Your task to perform on an android device: delete location history Image 0: 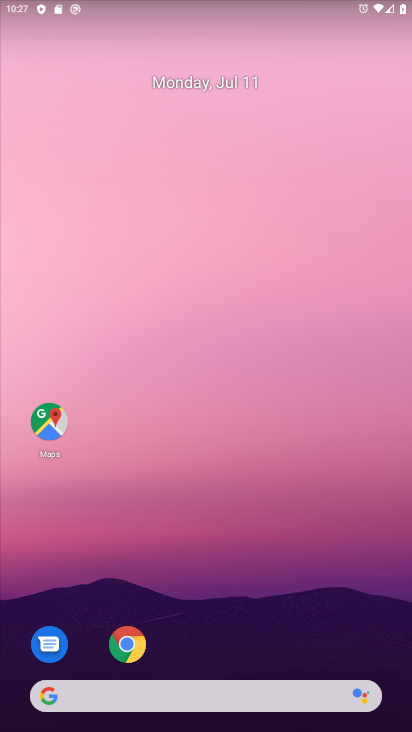
Step 0: drag from (208, 670) to (256, 30)
Your task to perform on an android device: delete location history Image 1: 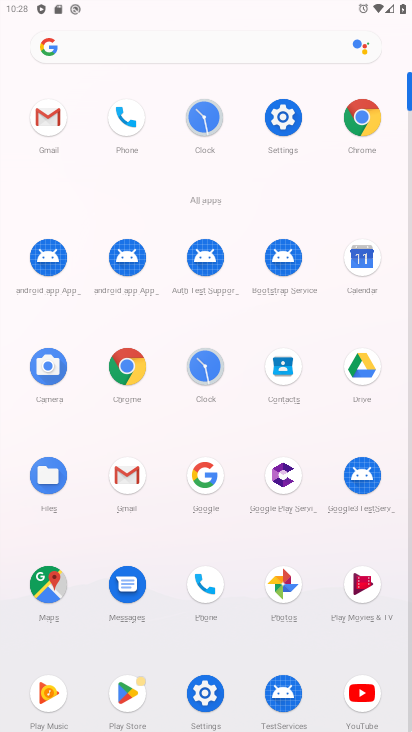
Step 1: click (291, 136)
Your task to perform on an android device: delete location history Image 2: 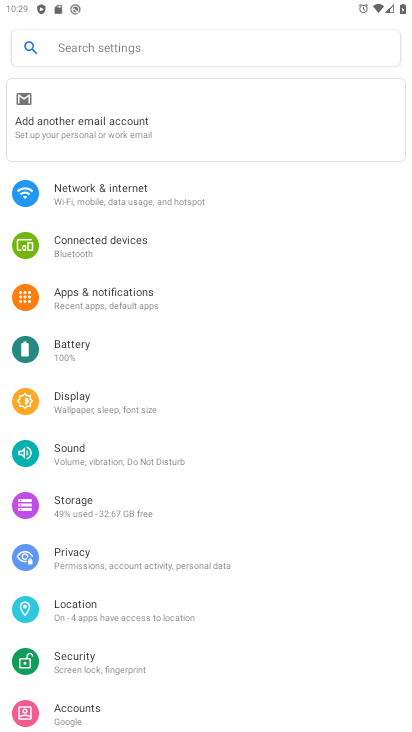
Step 2: press home button
Your task to perform on an android device: delete location history Image 3: 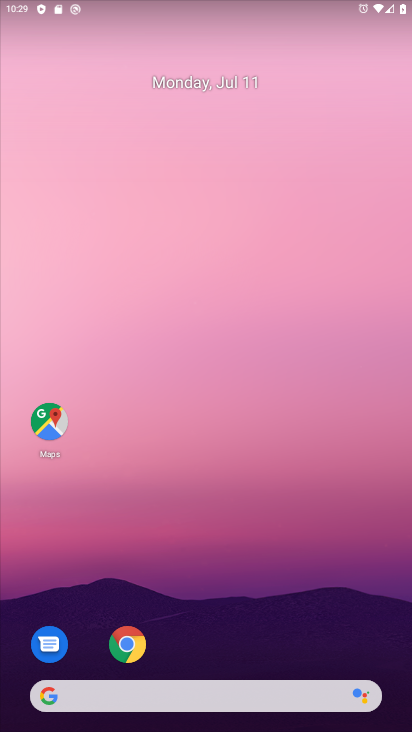
Step 3: click (45, 430)
Your task to perform on an android device: delete location history Image 4: 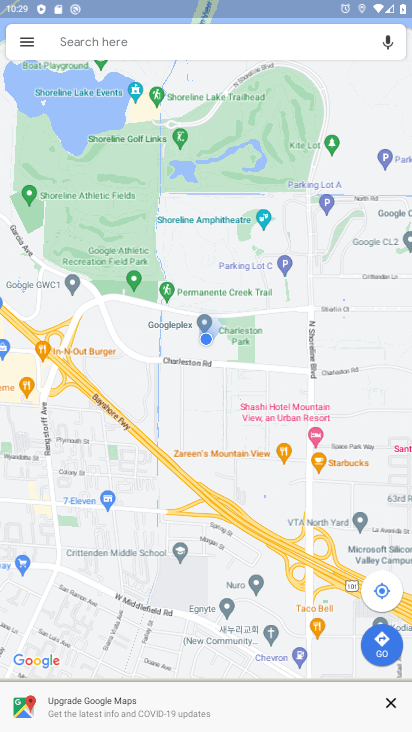
Step 4: click (29, 45)
Your task to perform on an android device: delete location history Image 5: 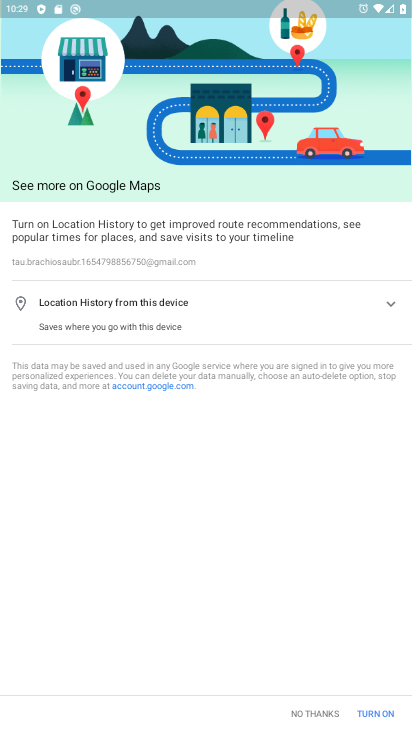
Step 5: click (307, 713)
Your task to perform on an android device: delete location history Image 6: 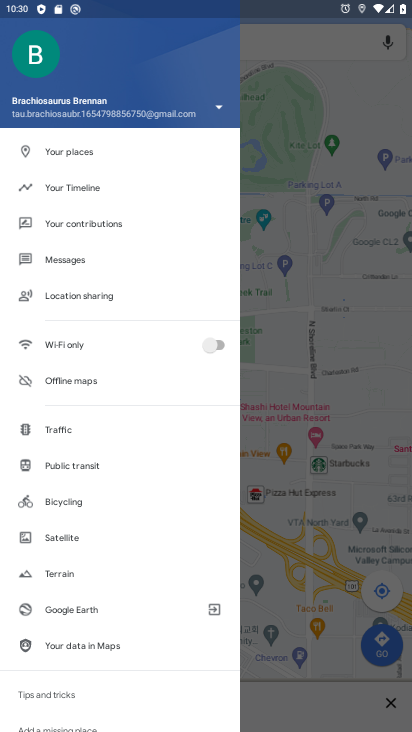
Step 6: drag from (111, 664) to (119, 462)
Your task to perform on an android device: delete location history Image 7: 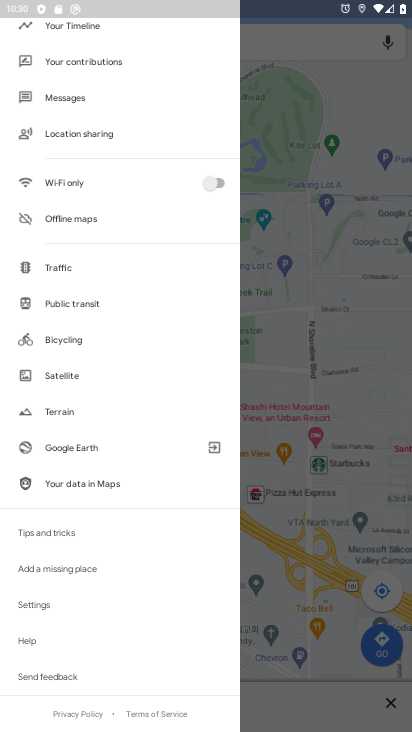
Step 7: click (79, 28)
Your task to perform on an android device: delete location history Image 8: 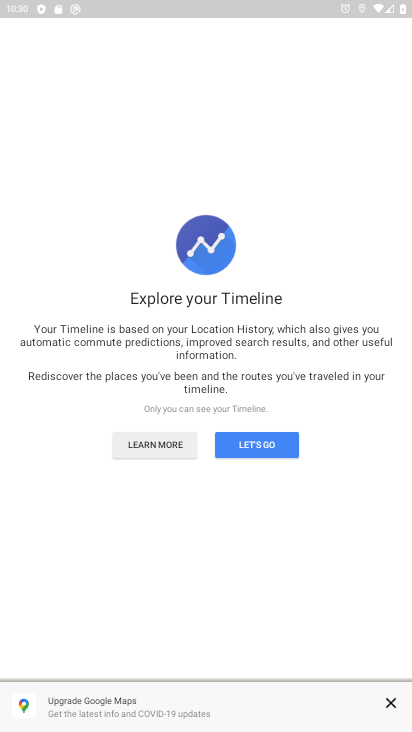
Step 8: click (239, 442)
Your task to perform on an android device: delete location history Image 9: 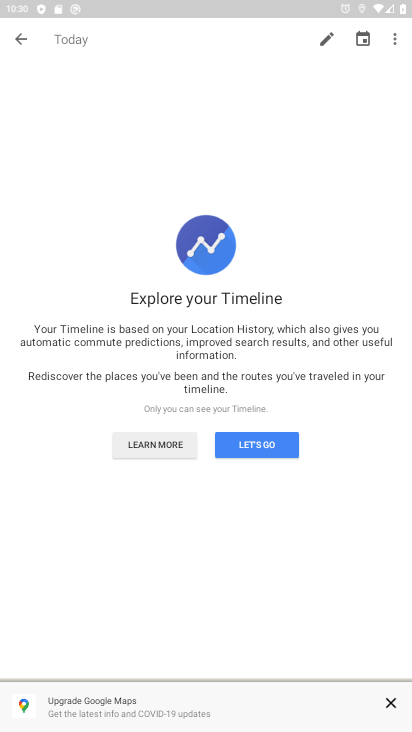
Step 9: click (239, 442)
Your task to perform on an android device: delete location history Image 10: 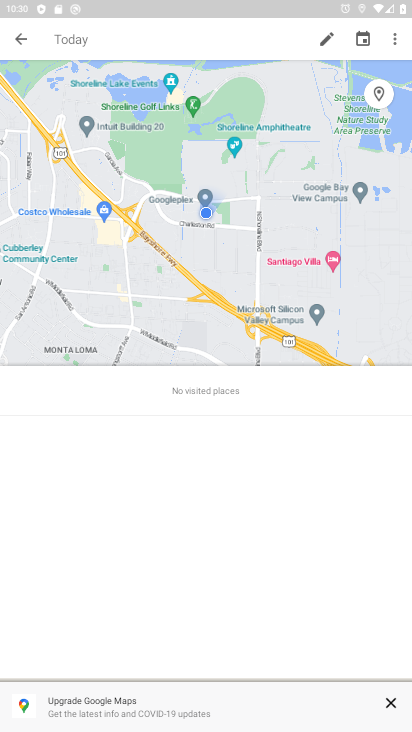
Step 10: click (388, 38)
Your task to perform on an android device: delete location history Image 11: 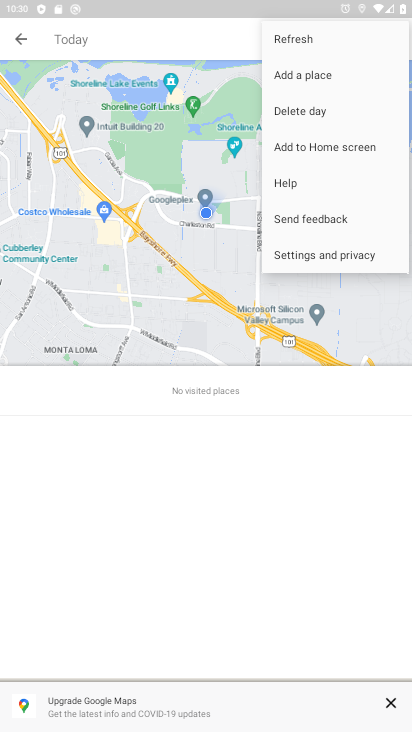
Step 11: click (294, 246)
Your task to perform on an android device: delete location history Image 12: 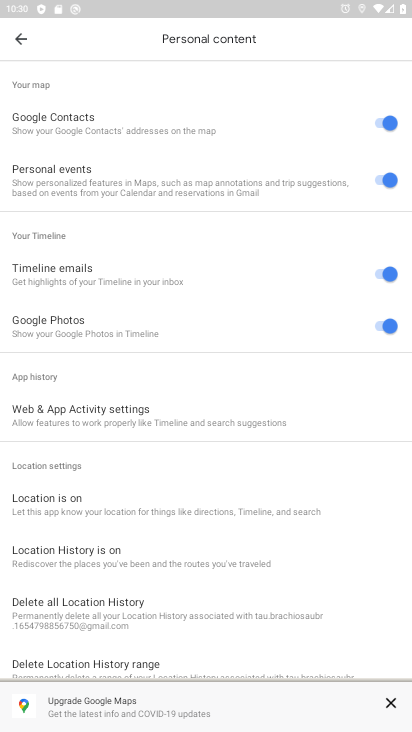
Step 12: click (78, 598)
Your task to perform on an android device: delete location history Image 13: 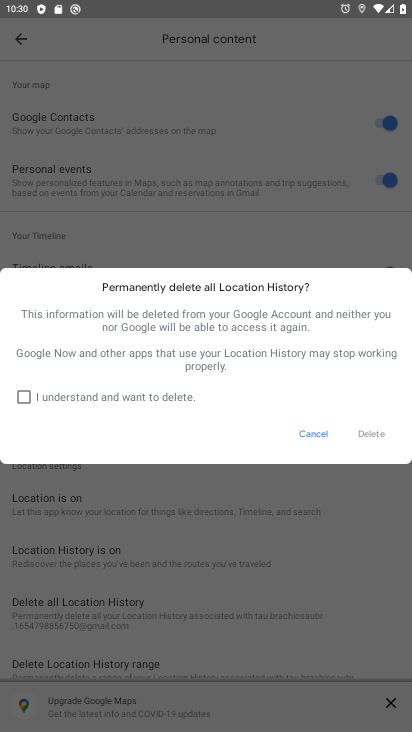
Step 13: click (188, 387)
Your task to perform on an android device: delete location history Image 14: 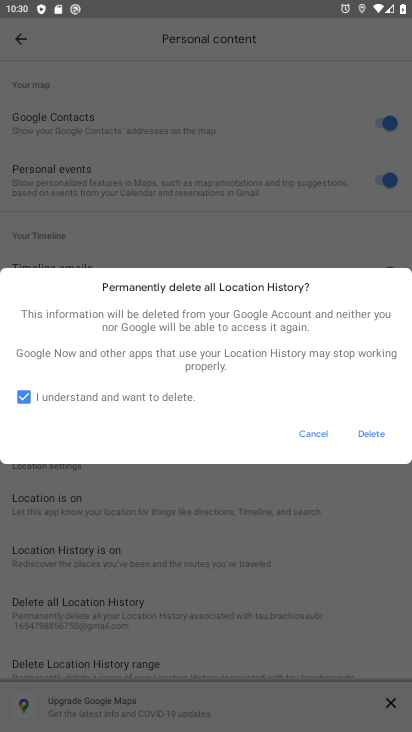
Step 14: click (362, 436)
Your task to perform on an android device: delete location history Image 15: 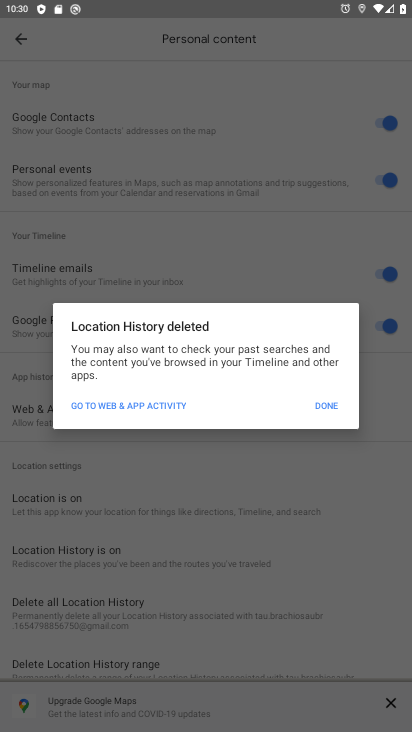
Step 15: click (320, 410)
Your task to perform on an android device: delete location history Image 16: 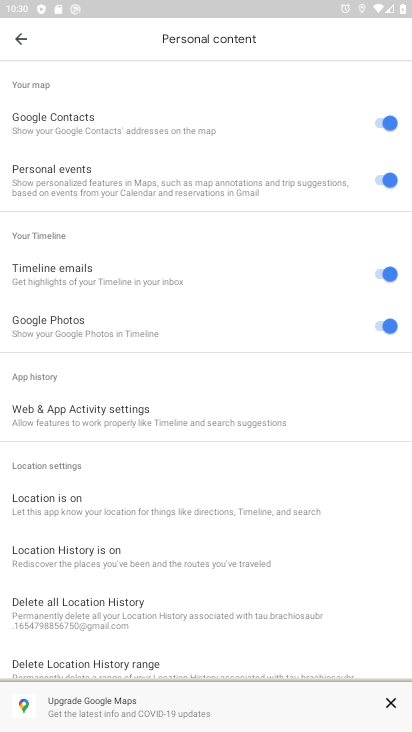
Step 16: task complete